Your task to perform on an android device: turn off smart reply in the gmail app Image 0: 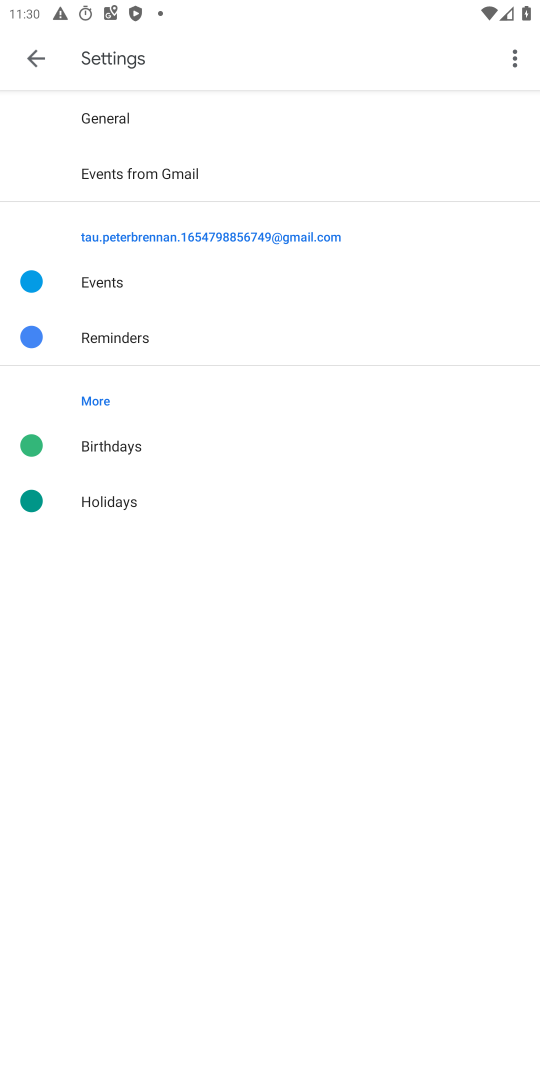
Step 0: press home button
Your task to perform on an android device: turn off smart reply in the gmail app Image 1: 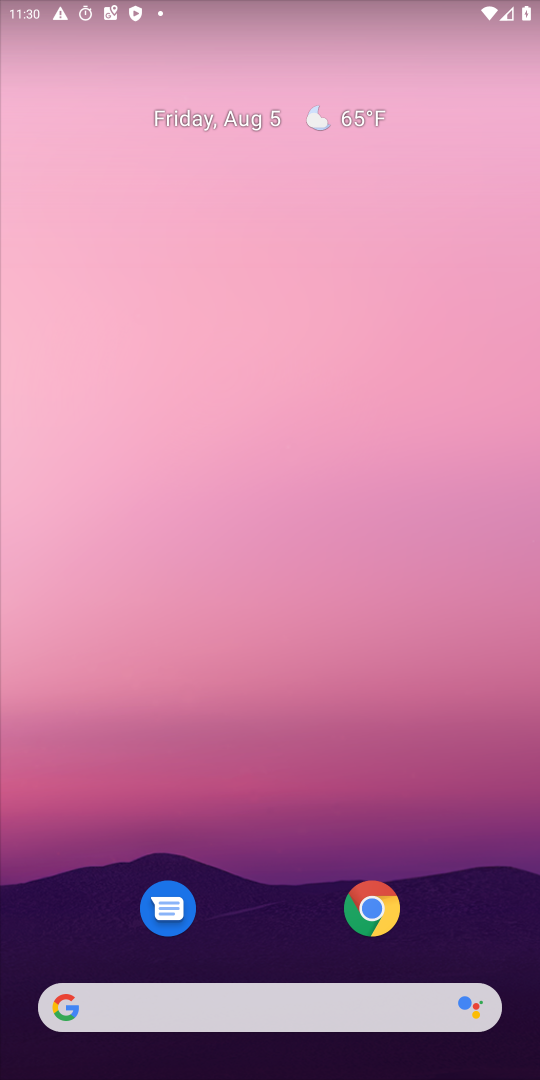
Step 1: click (231, 938)
Your task to perform on an android device: turn off smart reply in the gmail app Image 2: 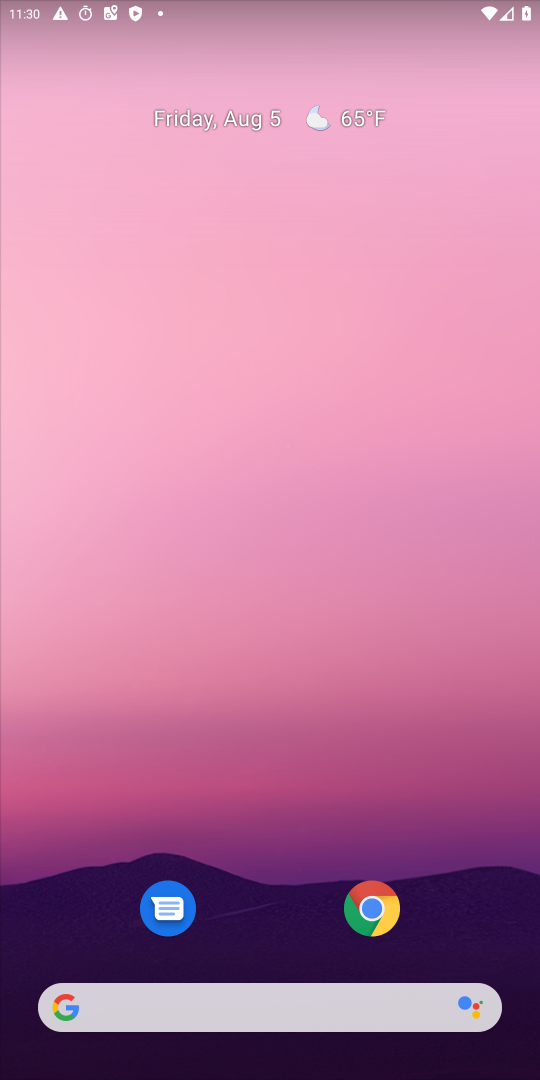
Step 2: drag from (229, 947) to (318, 433)
Your task to perform on an android device: turn off smart reply in the gmail app Image 3: 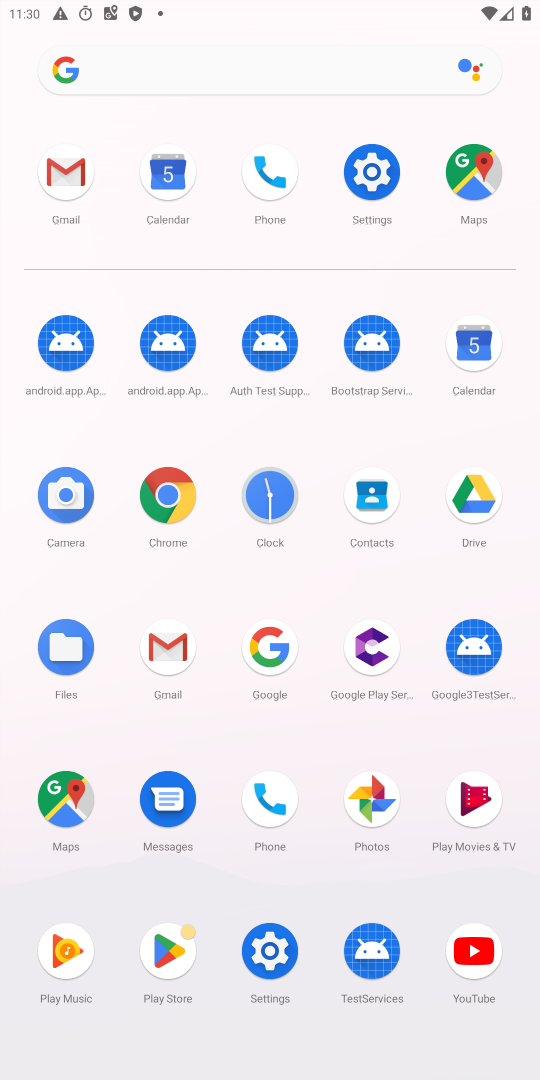
Step 3: click (175, 649)
Your task to perform on an android device: turn off smart reply in the gmail app Image 4: 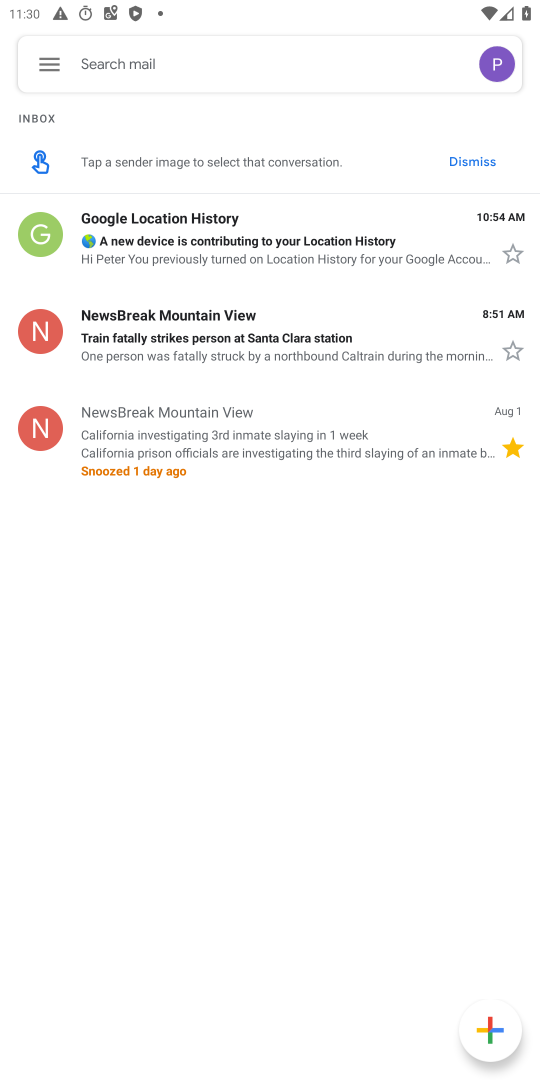
Step 4: click (45, 50)
Your task to perform on an android device: turn off smart reply in the gmail app Image 5: 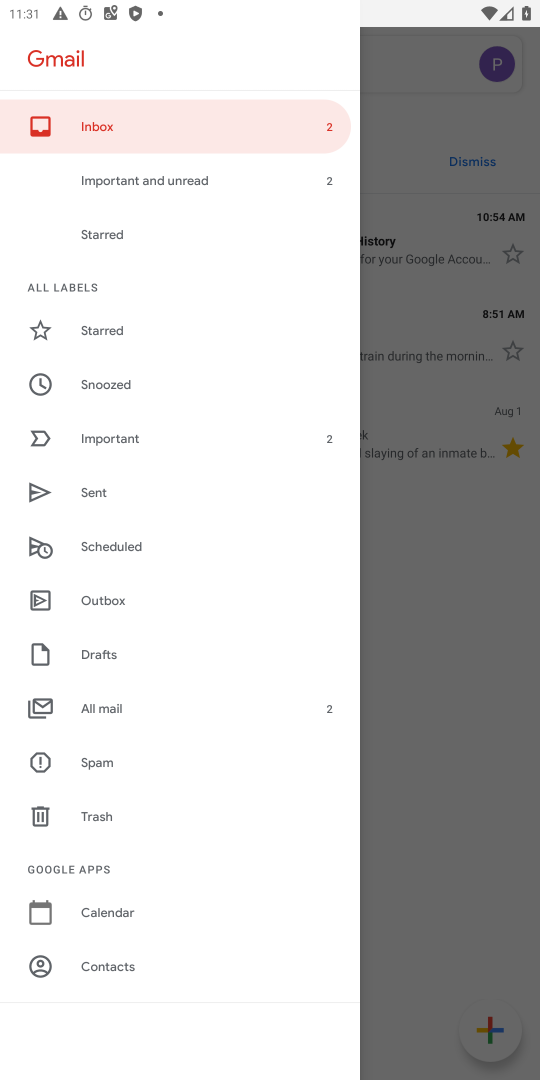
Step 5: click (218, 1003)
Your task to perform on an android device: turn off smart reply in the gmail app Image 6: 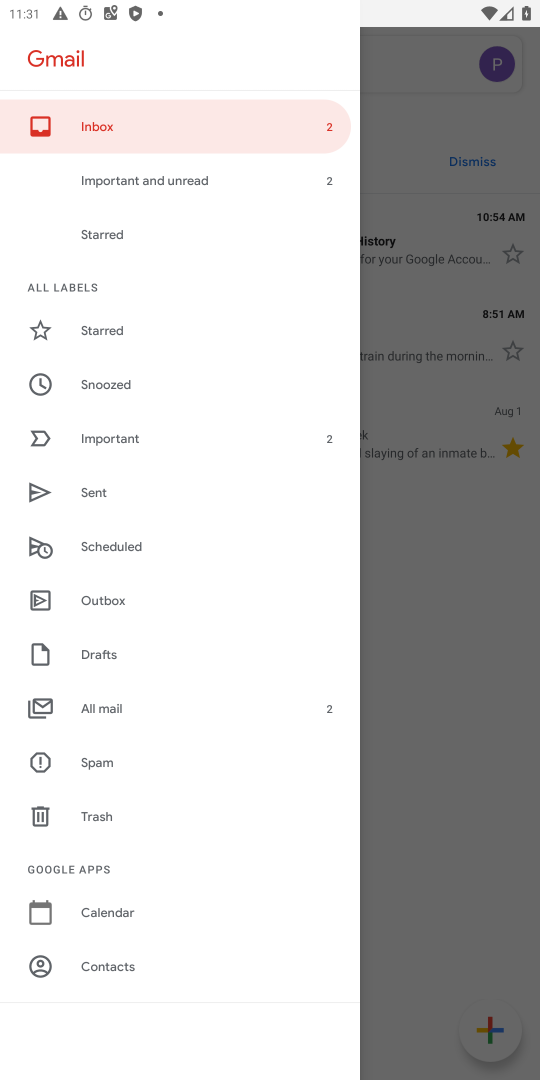
Step 6: drag from (215, 1009) to (218, 939)
Your task to perform on an android device: turn off smart reply in the gmail app Image 7: 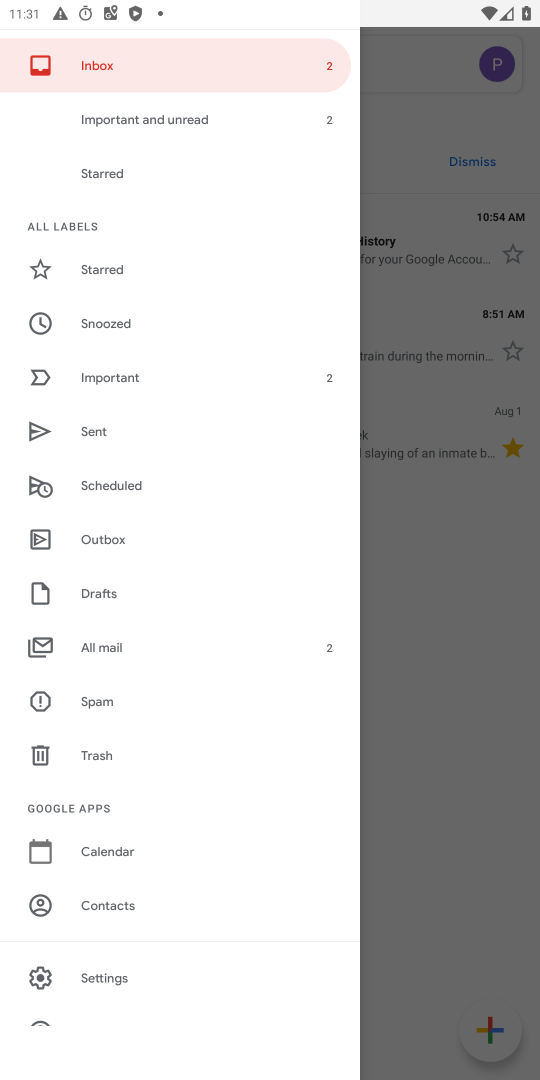
Step 7: click (114, 979)
Your task to perform on an android device: turn off smart reply in the gmail app Image 8: 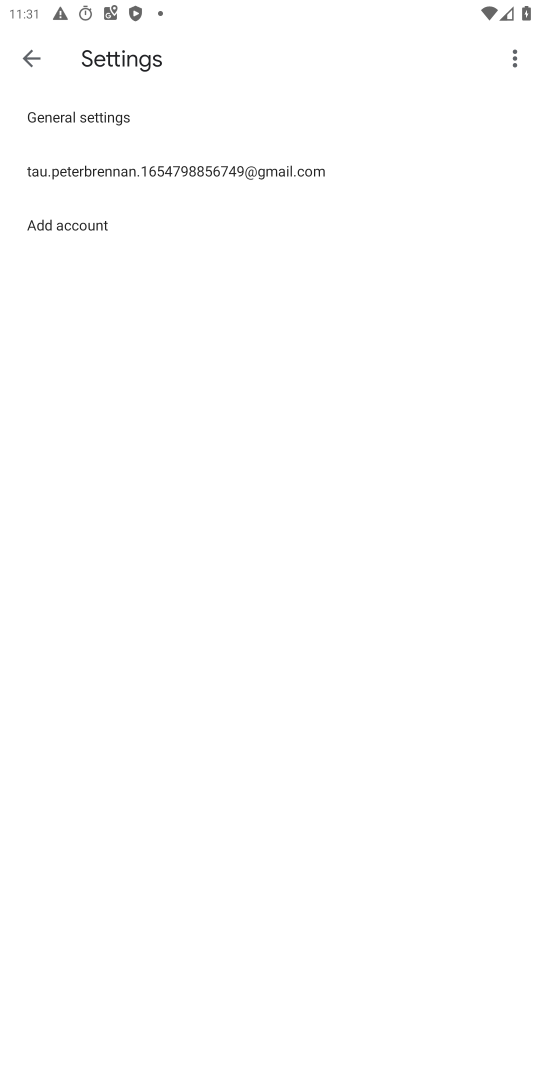
Step 8: click (94, 109)
Your task to perform on an android device: turn off smart reply in the gmail app Image 9: 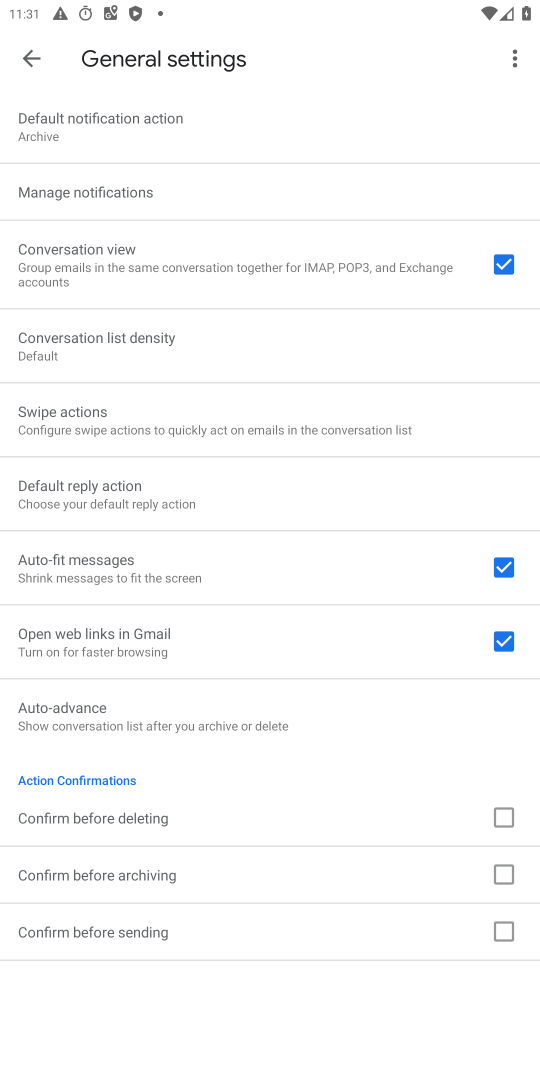
Step 9: click (31, 49)
Your task to perform on an android device: turn off smart reply in the gmail app Image 10: 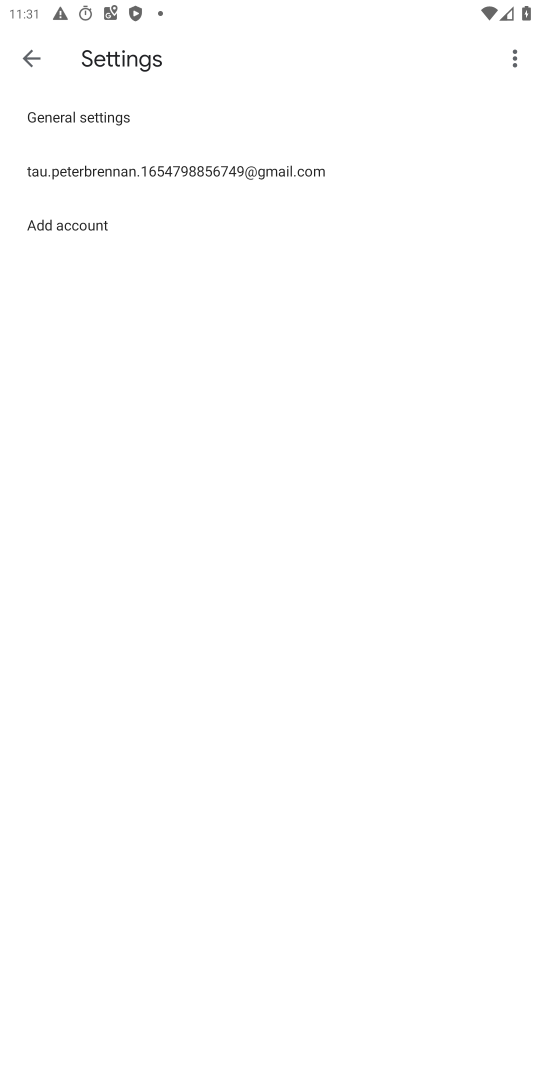
Step 10: click (117, 169)
Your task to perform on an android device: turn off smart reply in the gmail app Image 11: 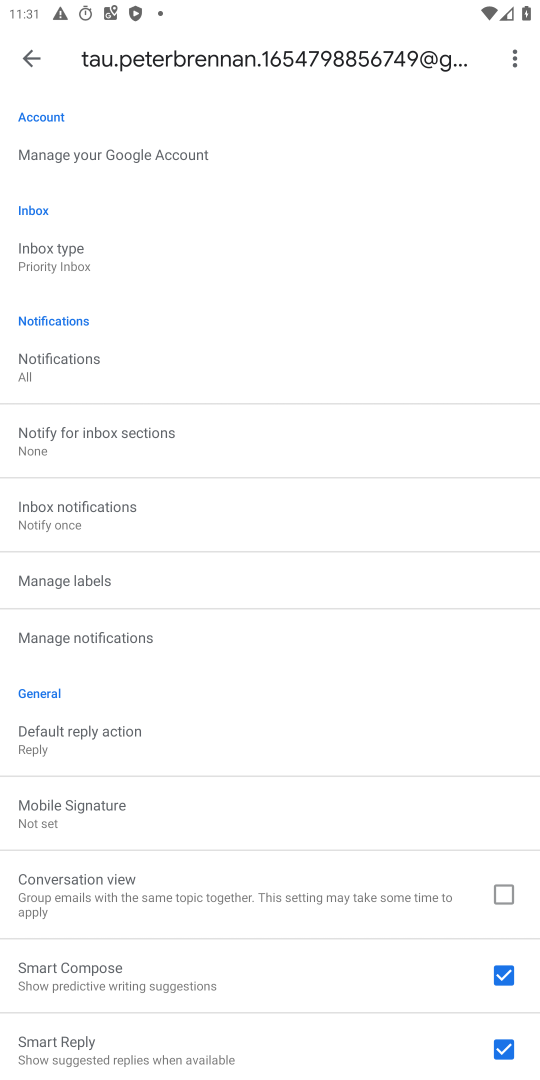
Step 11: click (502, 1048)
Your task to perform on an android device: turn off smart reply in the gmail app Image 12: 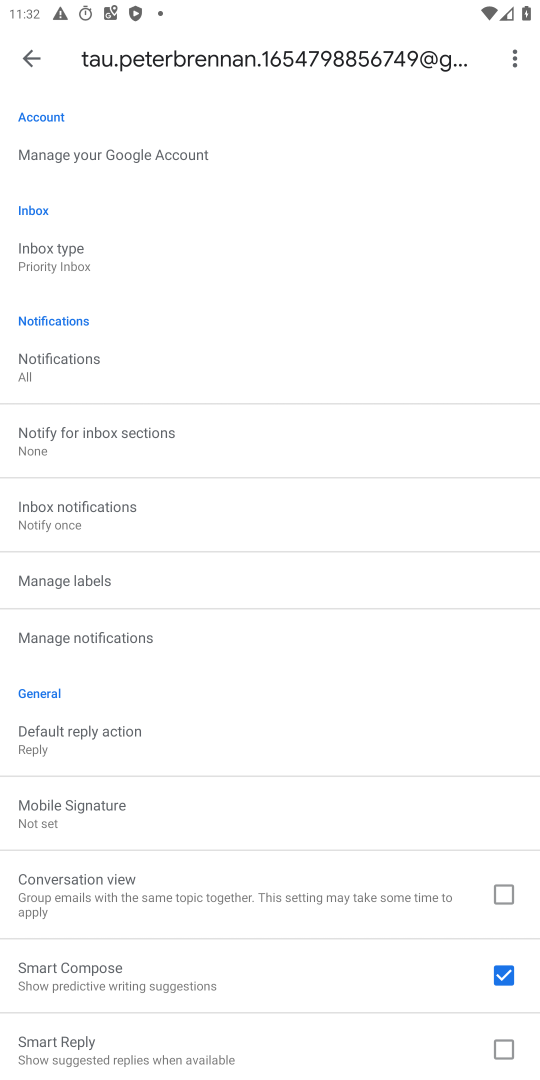
Step 12: task complete